Your task to perform on an android device: Open Reddit.com Image 0: 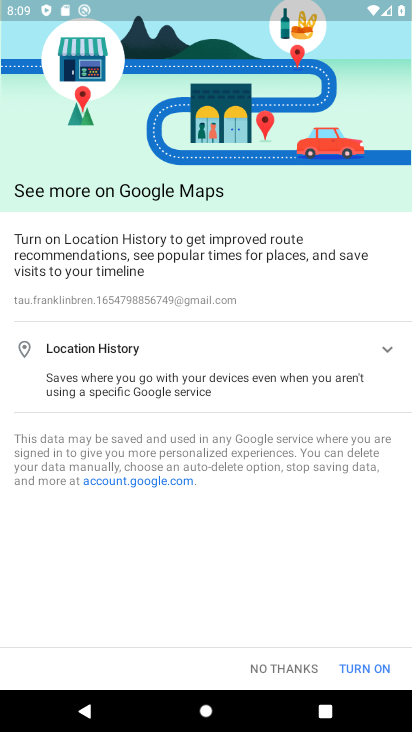
Step 0: press home button
Your task to perform on an android device: Open Reddit.com Image 1: 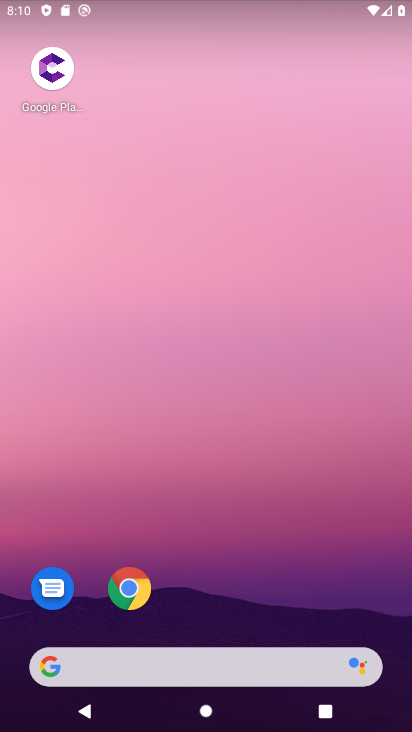
Step 1: click (126, 598)
Your task to perform on an android device: Open Reddit.com Image 2: 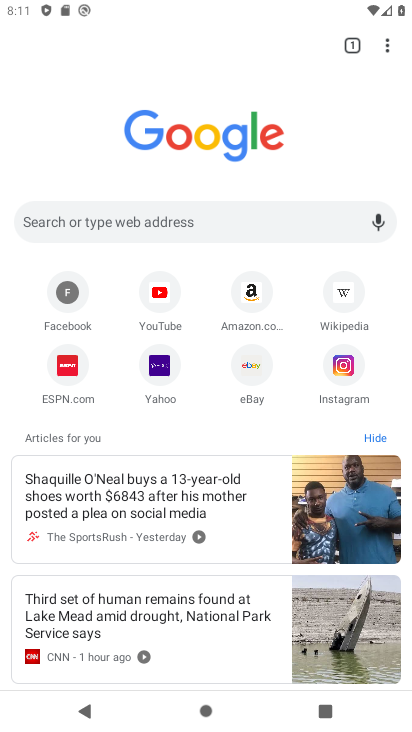
Step 2: click (114, 217)
Your task to perform on an android device: Open Reddit.com Image 3: 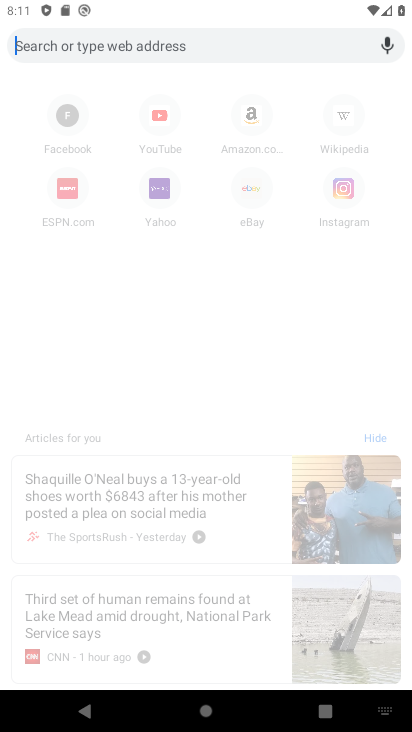
Step 3: type "reddit.com"
Your task to perform on an android device: Open Reddit.com Image 4: 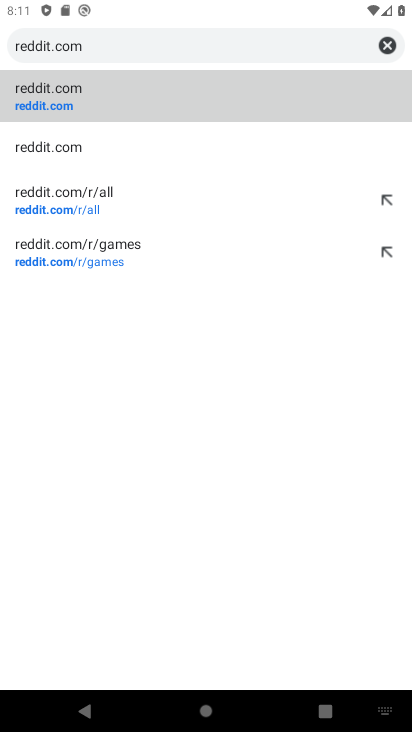
Step 4: click (43, 102)
Your task to perform on an android device: Open Reddit.com Image 5: 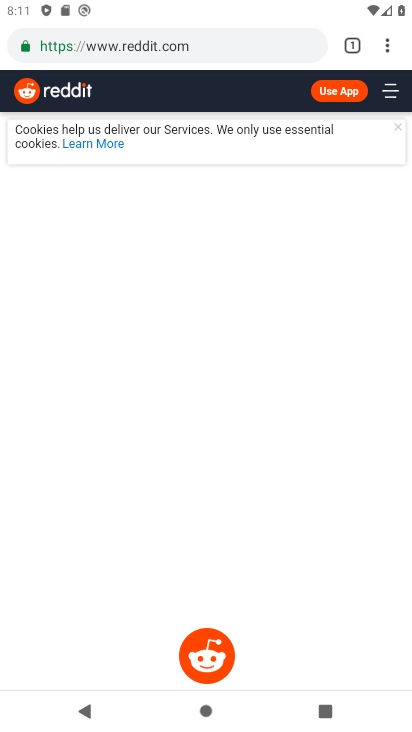
Step 5: task complete